Your task to perform on an android device: turn on data saver in the chrome app Image 0: 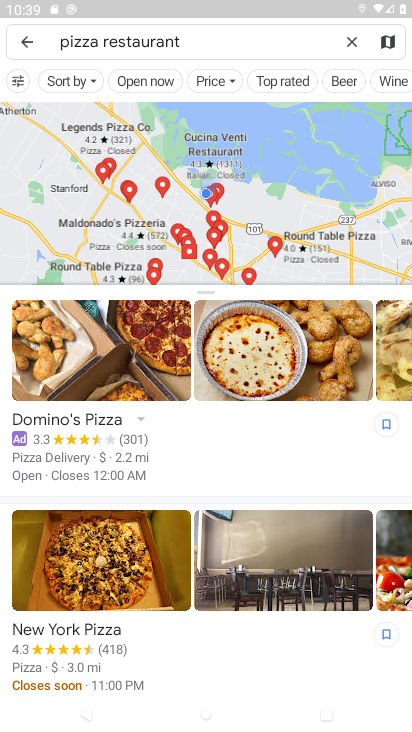
Step 0: press home button
Your task to perform on an android device: turn on data saver in the chrome app Image 1: 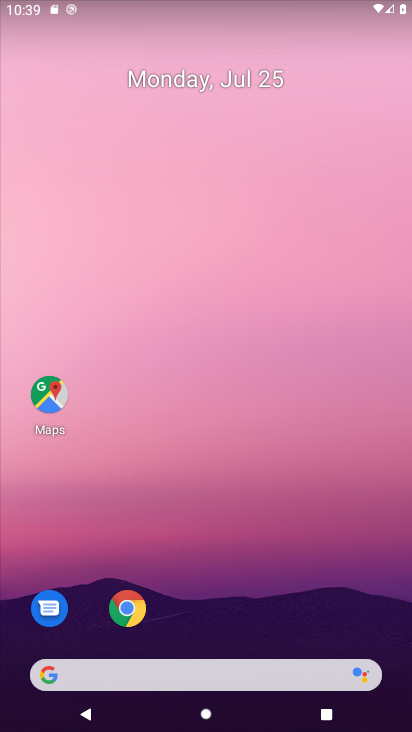
Step 1: drag from (276, 626) to (299, 180)
Your task to perform on an android device: turn on data saver in the chrome app Image 2: 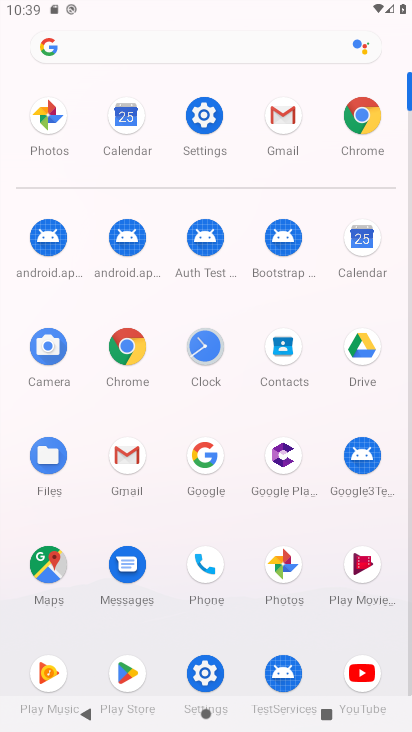
Step 2: click (129, 329)
Your task to perform on an android device: turn on data saver in the chrome app Image 3: 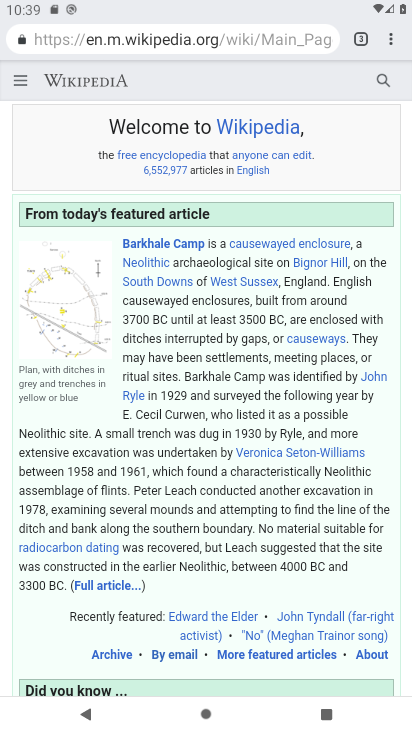
Step 3: click (405, 30)
Your task to perform on an android device: turn on data saver in the chrome app Image 4: 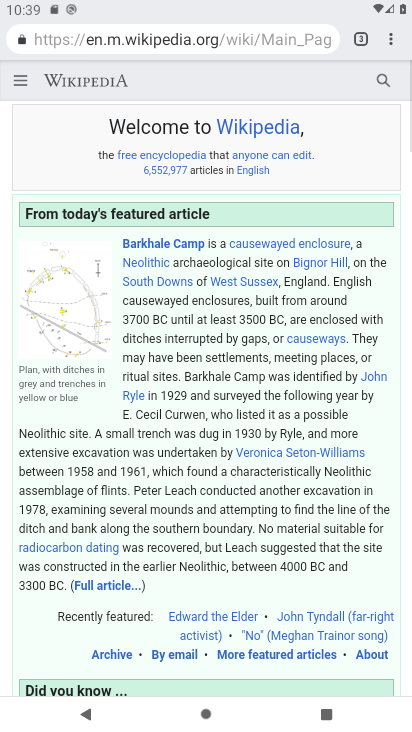
Step 4: click (400, 32)
Your task to perform on an android device: turn on data saver in the chrome app Image 5: 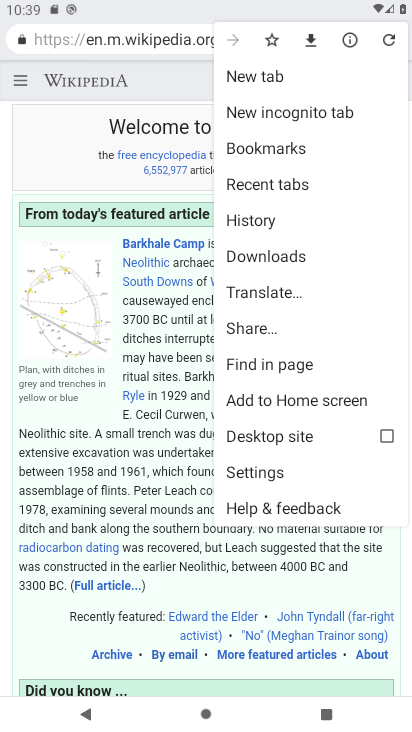
Step 5: click (262, 471)
Your task to perform on an android device: turn on data saver in the chrome app Image 6: 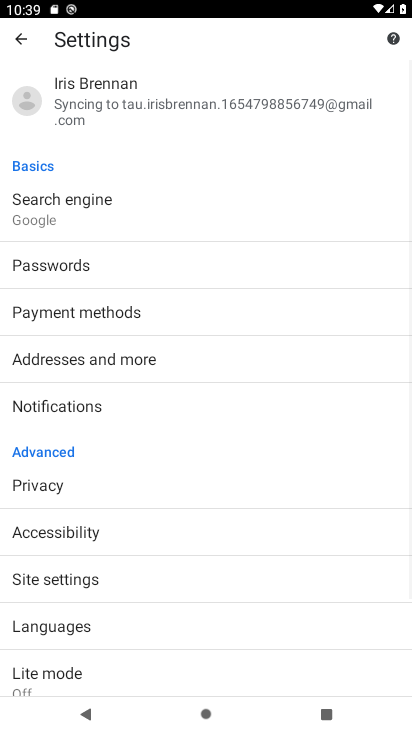
Step 6: drag from (130, 661) to (137, 446)
Your task to perform on an android device: turn on data saver in the chrome app Image 7: 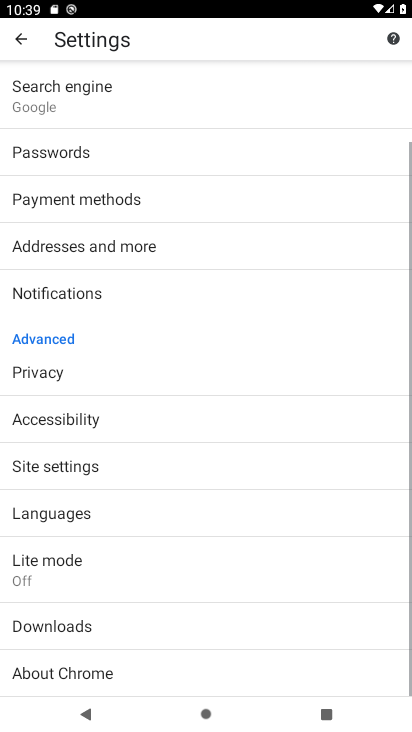
Step 7: click (106, 566)
Your task to perform on an android device: turn on data saver in the chrome app Image 8: 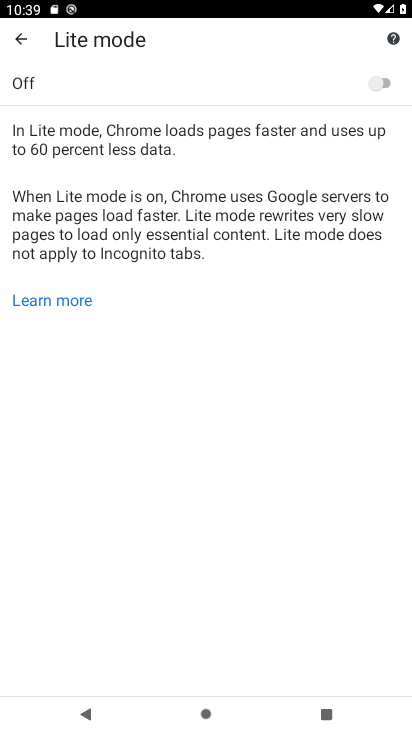
Step 8: click (392, 82)
Your task to perform on an android device: turn on data saver in the chrome app Image 9: 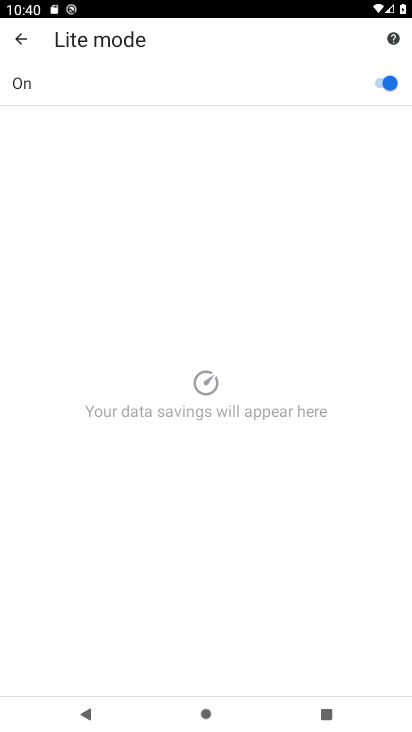
Step 9: task complete